Your task to perform on an android device: Open Google Image 0: 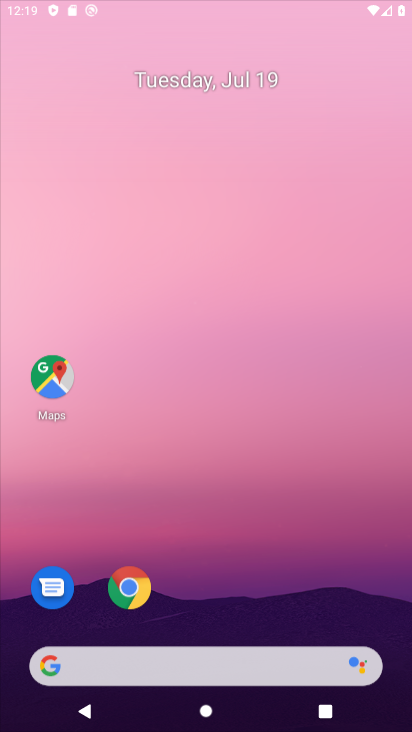
Step 0: press home button
Your task to perform on an android device: Open Google Image 1: 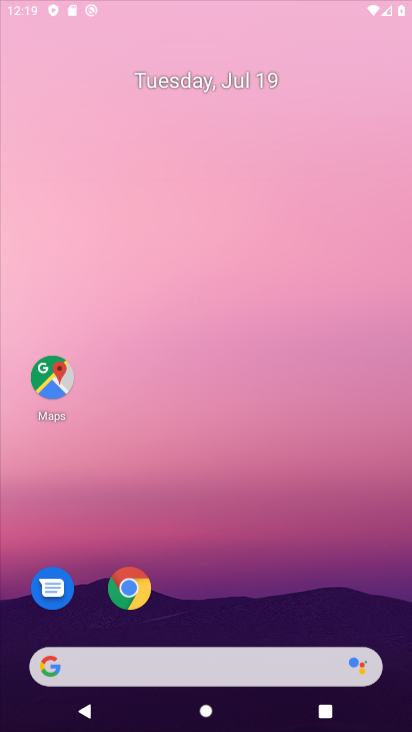
Step 1: drag from (261, 688) to (254, 250)
Your task to perform on an android device: Open Google Image 2: 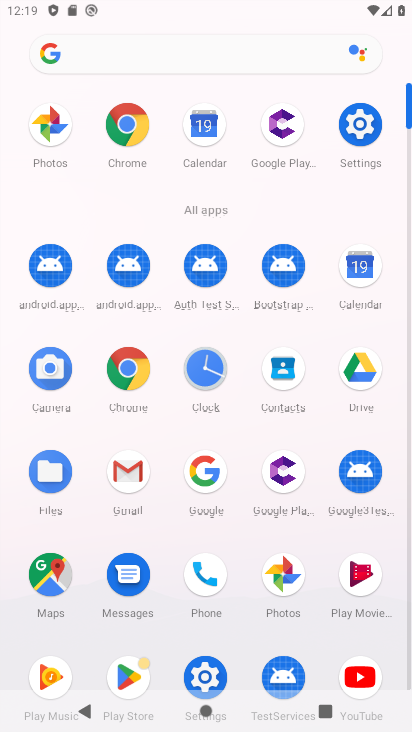
Step 2: drag from (370, 148) to (231, 275)
Your task to perform on an android device: Open Google Image 3: 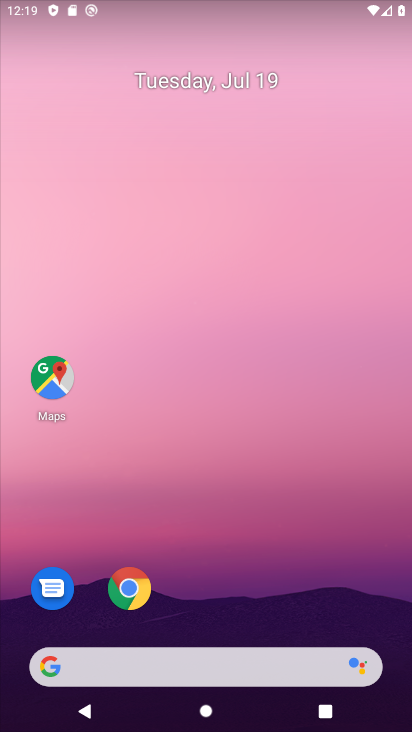
Step 3: drag from (333, 690) to (219, 168)
Your task to perform on an android device: Open Google Image 4: 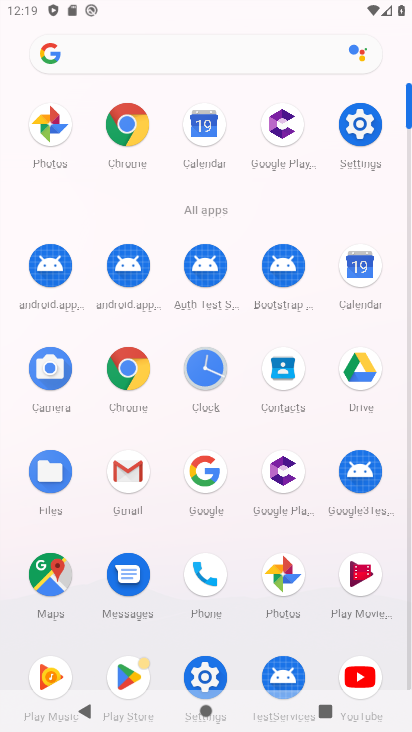
Step 4: click (195, 383)
Your task to perform on an android device: Open Google Image 5: 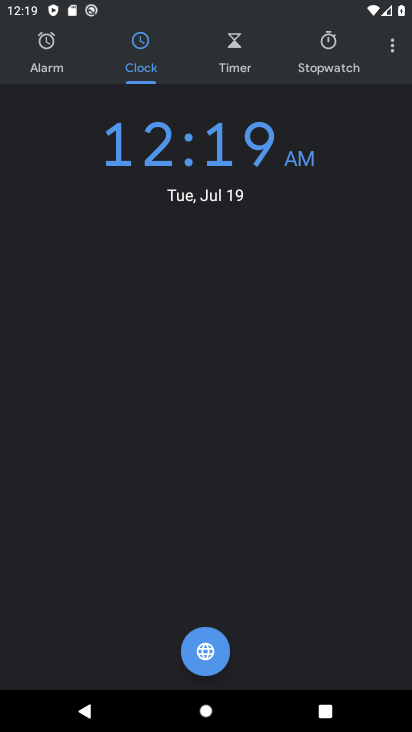
Step 5: click (235, 46)
Your task to perform on an android device: Open Google Image 6: 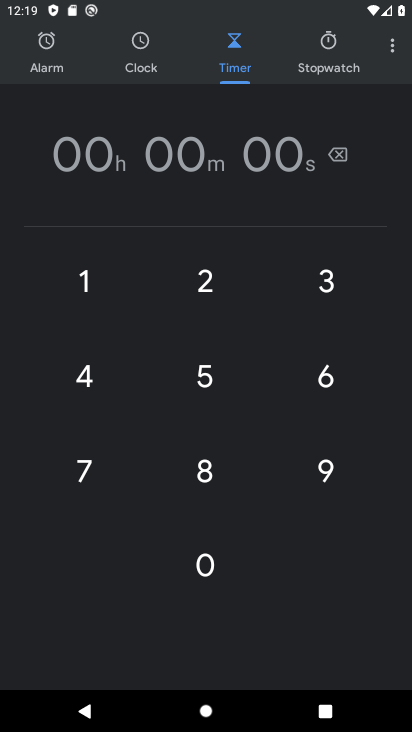
Step 6: click (198, 427)
Your task to perform on an android device: Open Google Image 7: 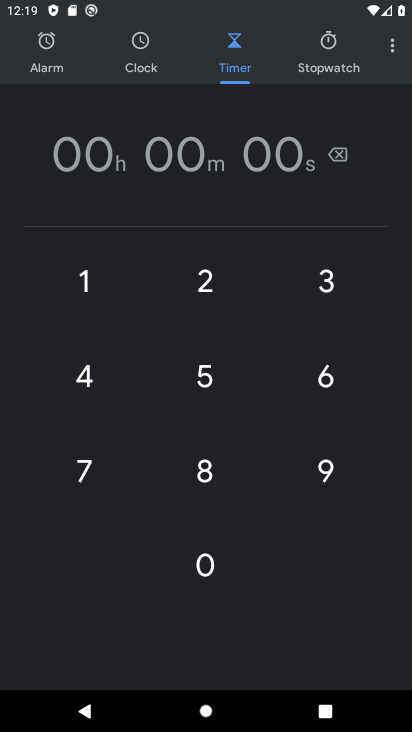
Step 7: click (93, 399)
Your task to perform on an android device: Open Google Image 8: 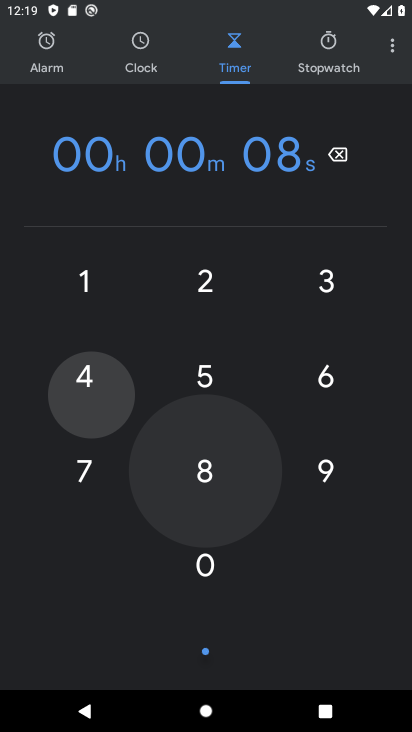
Step 8: click (213, 381)
Your task to perform on an android device: Open Google Image 9: 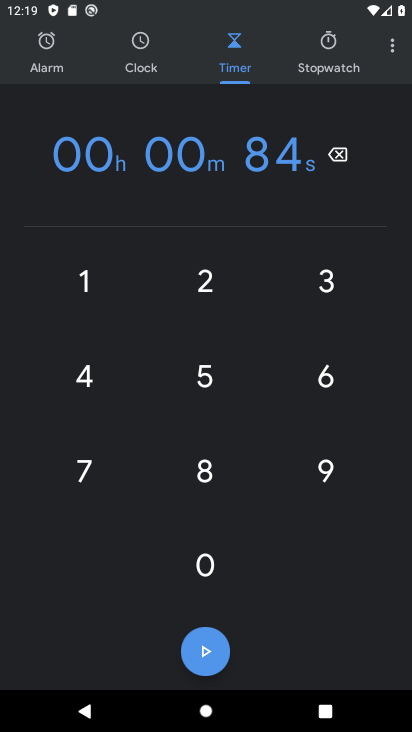
Step 9: click (213, 381)
Your task to perform on an android device: Open Google Image 10: 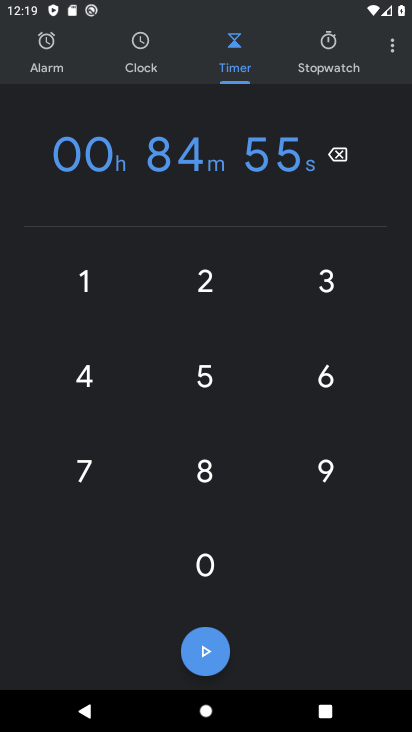
Step 10: click (109, 285)
Your task to perform on an android device: Open Google Image 11: 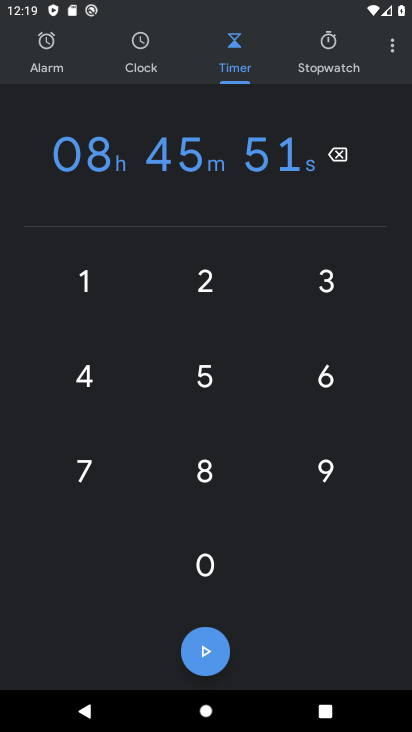
Step 11: click (196, 656)
Your task to perform on an android device: Open Google Image 12: 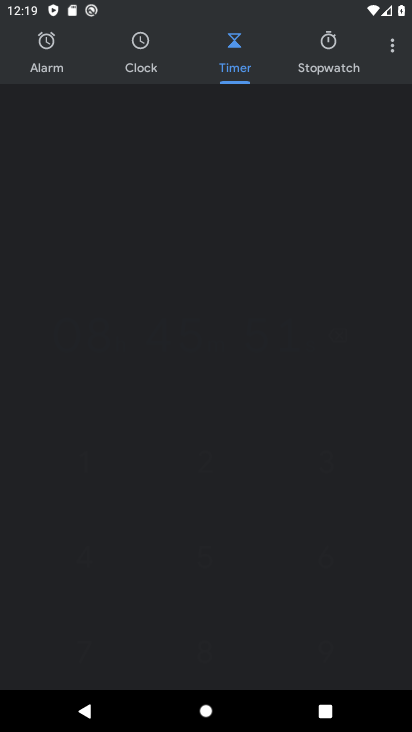
Step 12: click (198, 656)
Your task to perform on an android device: Open Google Image 13: 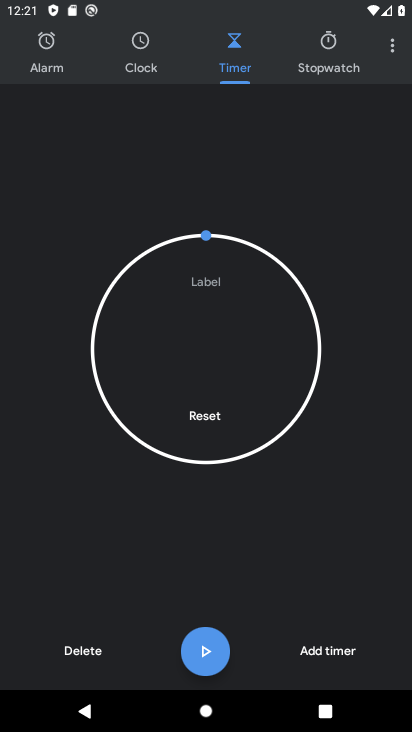
Step 13: task complete